Your task to perform on an android device: move a message to another label in the gmail app Image 0: 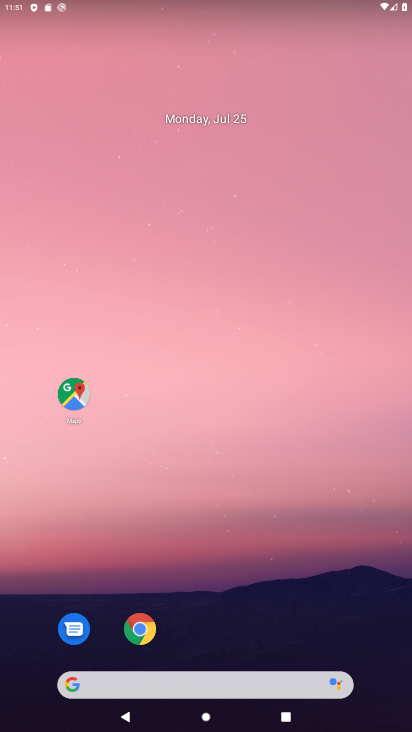
Step 0: click (249, 253)
Your task to perform on an android device: move a message to another label in the gmail app Image 1: 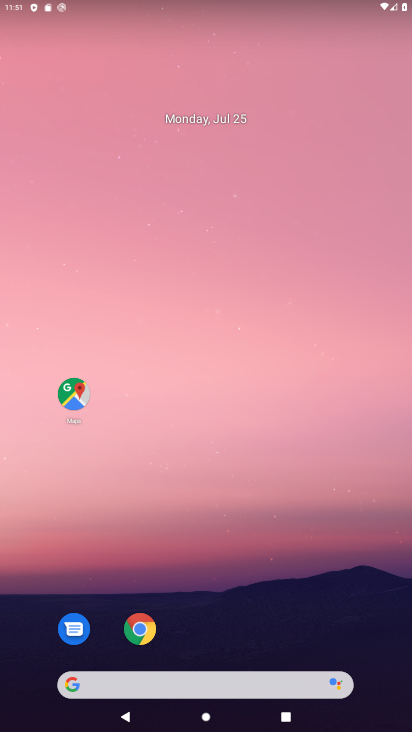
Step 1: drag from (277, 587) to (246, 279)
Your task to perform on an android device: move a message to another label in the gmail app Image 2: 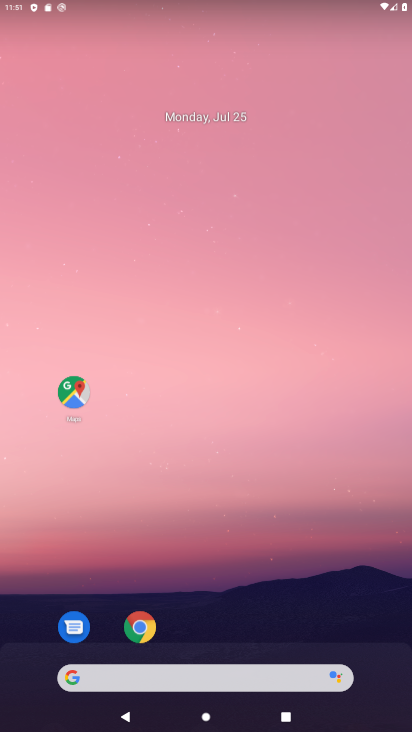
Step 2: drag from (204, 369) to (167, 103)
Your task to perform on an android device: move a message to another label in the gmail app Image 3: 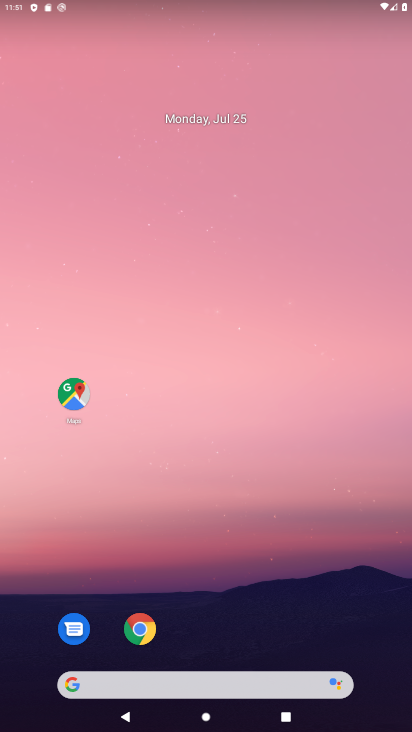
Step 3: drag from (262, 223) to (166, 68)
Your task to perform on an android device: move a message to another label in the gmail app Image 4: 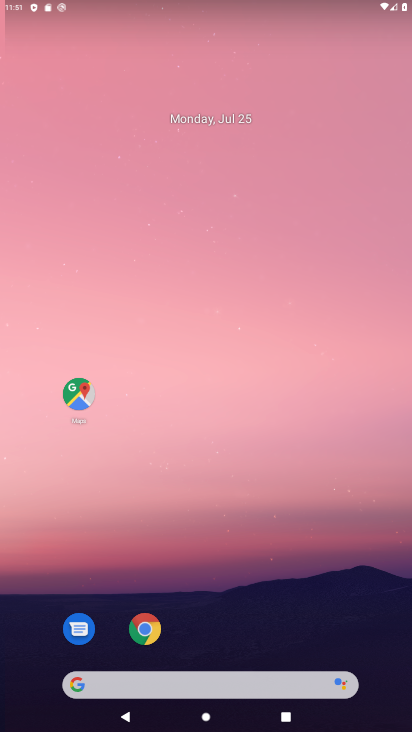
Step 4: drag from (148, 159) to (243, 188)
Your task to perform on an android device: move a message to another label in the gmail app Image 5: 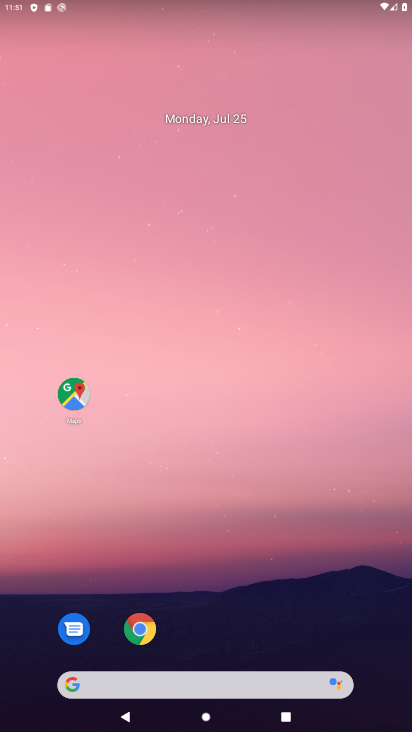
Step 5: drag from (280, 350) to (180, 9)
Your task to perform on an android device: move a message to another label in the gmail app Image 6: 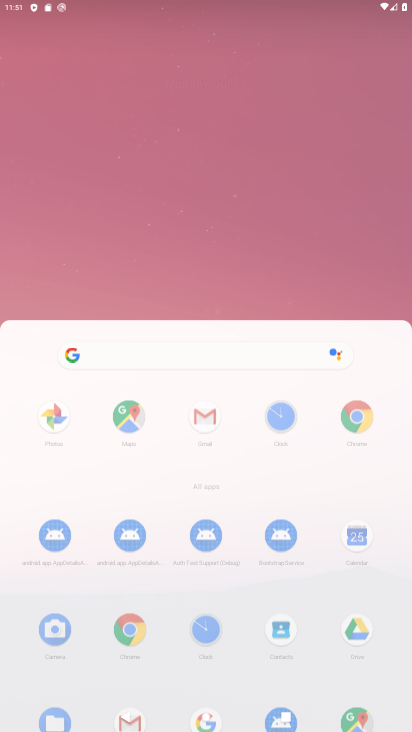
Step 6: drag from (162, 237) to (131, 50)
Your task to perform on an android device: move a message to another label in the gmail app Image 7: 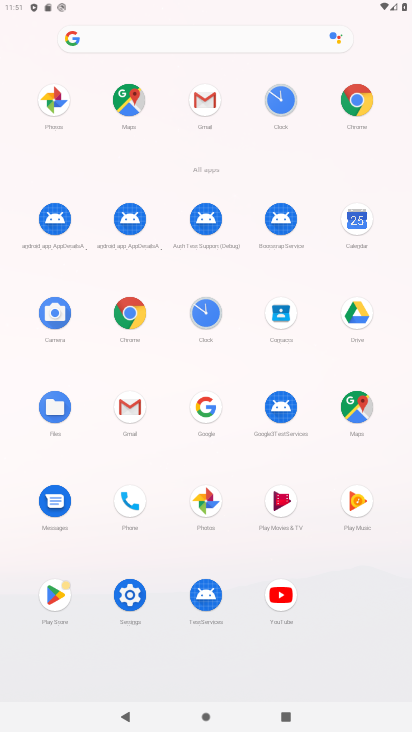
Step 7: click (133, 402)
Your task to perform on an android device: move a message to another label in the gmail app Image 8: 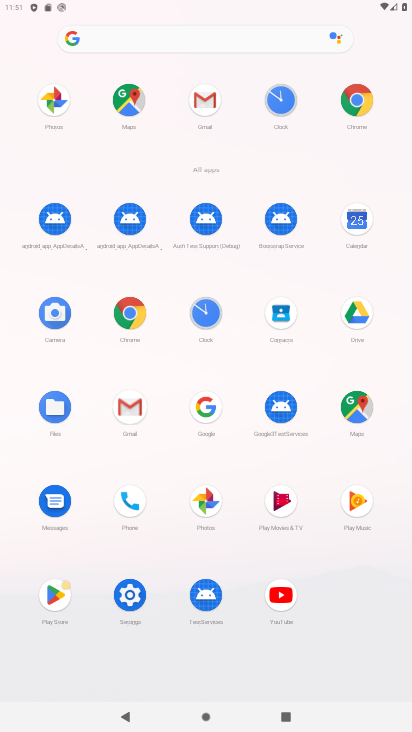
Step 8: click (127, 402)
Your task to perform on an android device: move a message to another label in the gmail app Image 9: 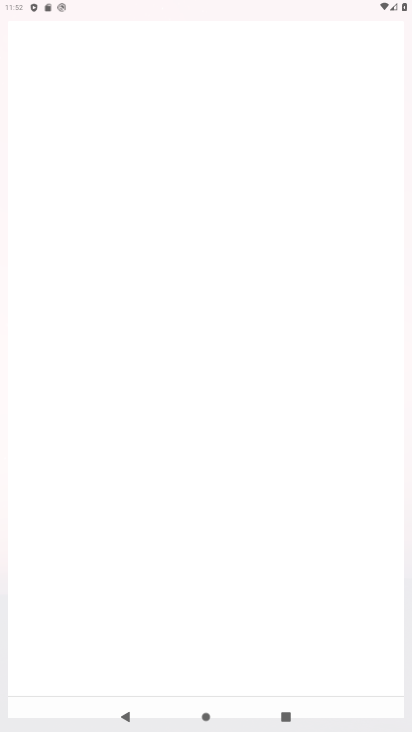
Step 9: click (140, 401)
Your task to perform on an android device: move a message to another label in the gmail app Image 10: 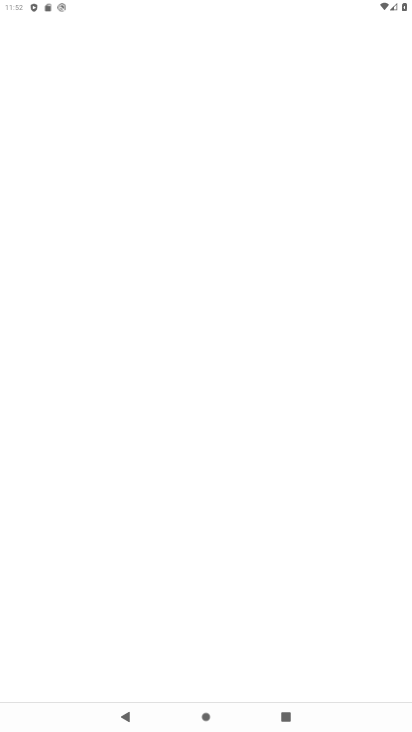
Step 10: click (131, 422)
Your task to perform on an android device: move a message to another label in the gmail app Image 11: 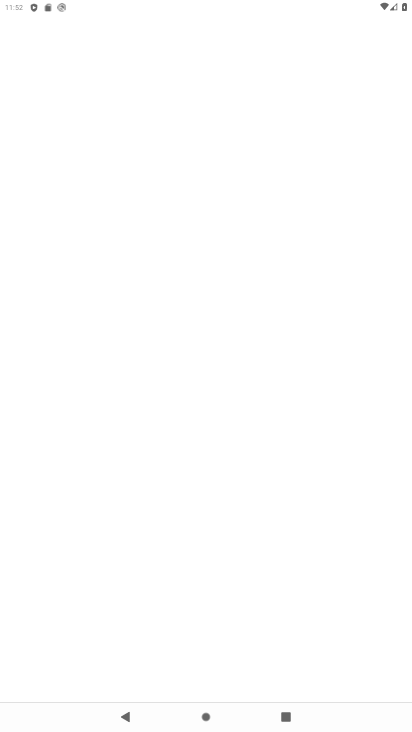
Step 11: click (147, 366)
Your task to perform on an android device: move a message to another label in the gmail app Image 12: 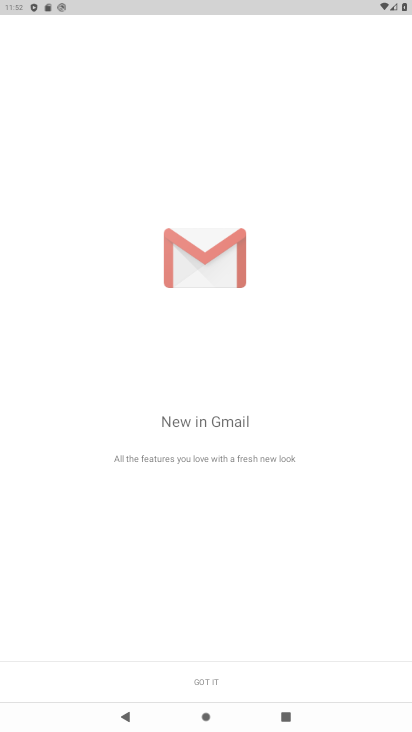
Step 12: click (121, 409)
Your task to perform on an android device: move a message to another label in the gmail app Image 13: 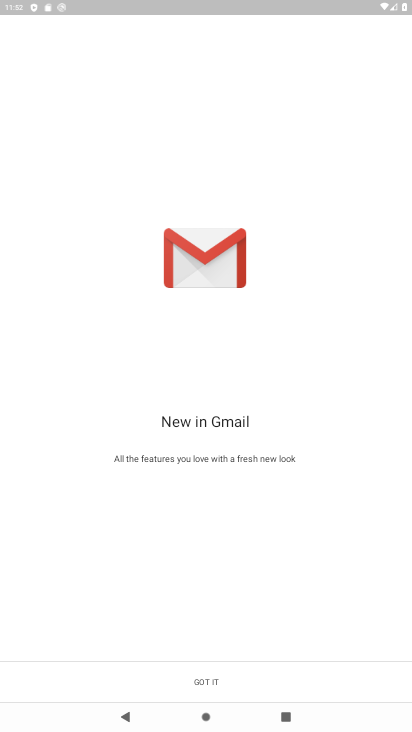
Step 13: click (119, 408)
Your task to perform on an android device: move a message to another label in the gmail app Image 14: 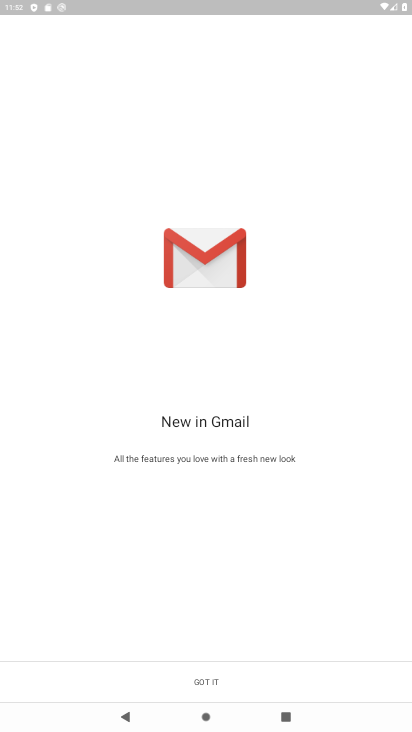
Step 14: click (118, 406)
Your task to perform on an android device: move a message to another label in the gmail app Image 15: 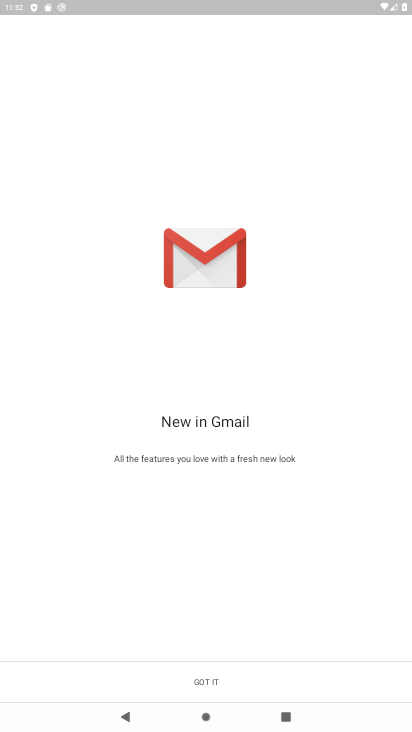
Step 15: click (118, 407)
Your task to perform on an android device: move a message to another label in the gmail app Image 16: 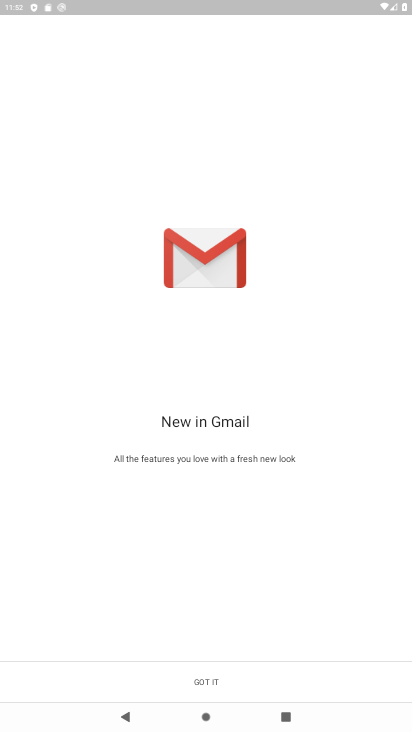
Step 16: click (217, 679)
Your task to perform on an android device: move a message to another label in the gmail app Image 17: 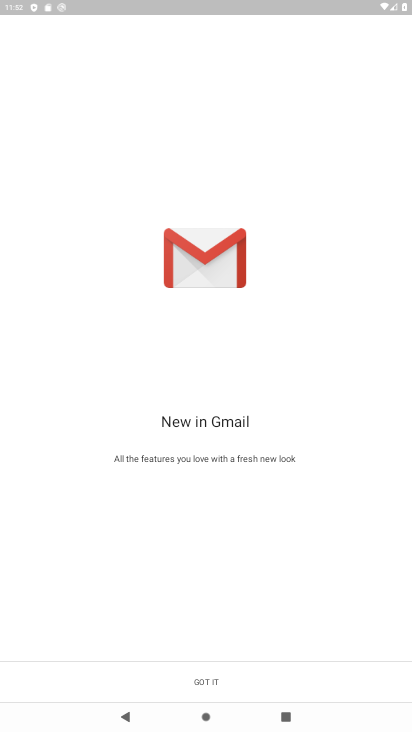
Step 17: click (217, 680)
Your task to perform on an android device: move a message to another label in the gmail app Image 18: 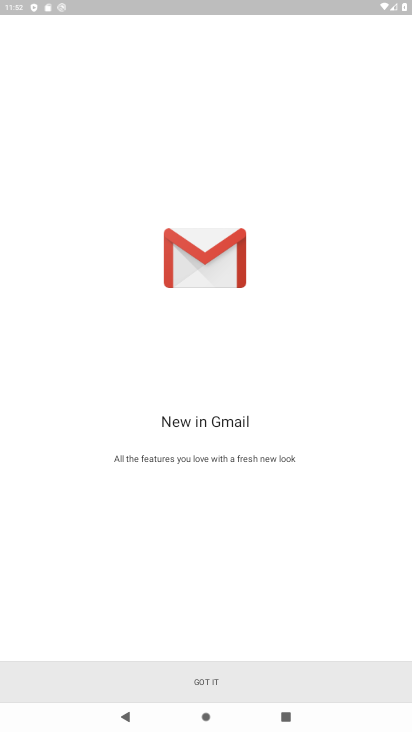
Step 18: click (220, 682)
Your task to perform on an android device: move a message to another label in the gmail app Image 19: 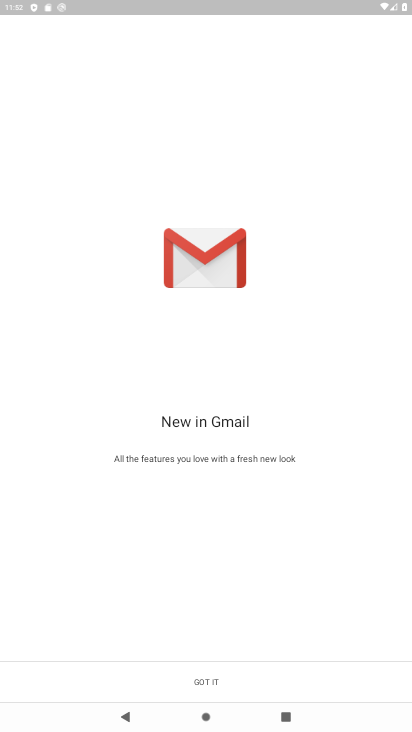
Step 19: click (220, 682)
Your task to perform on an android device: move a message to another label in the gmail app Image 20: 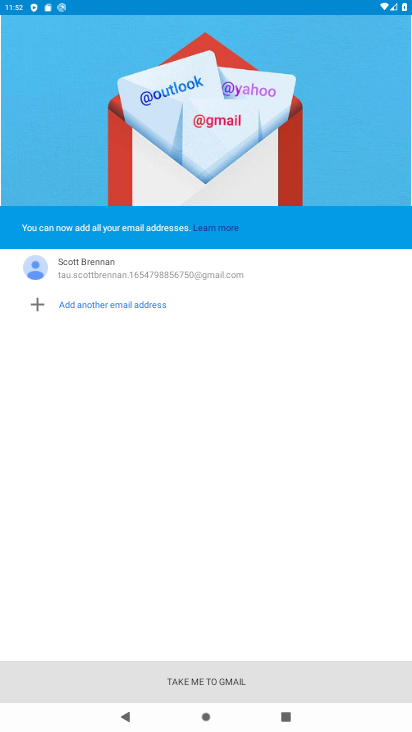
Step 20: click (218, 685)
Your task to perform on an android device: move a message to another label in the gmail app Image 21: 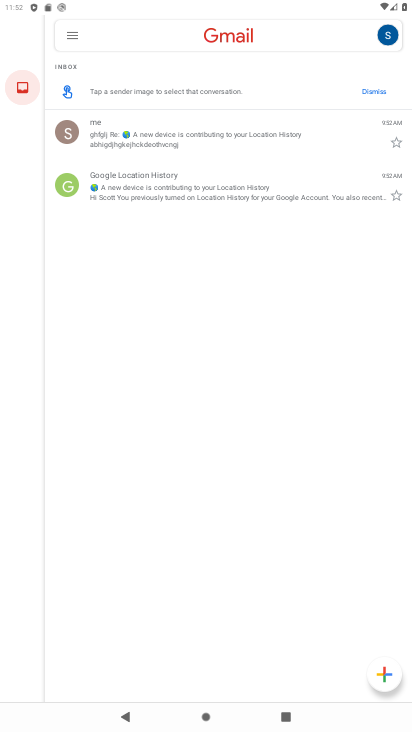
Step 21: click (243, 678)
Your task to perform on an android device: move a message to another label in the gmail app Image 22: 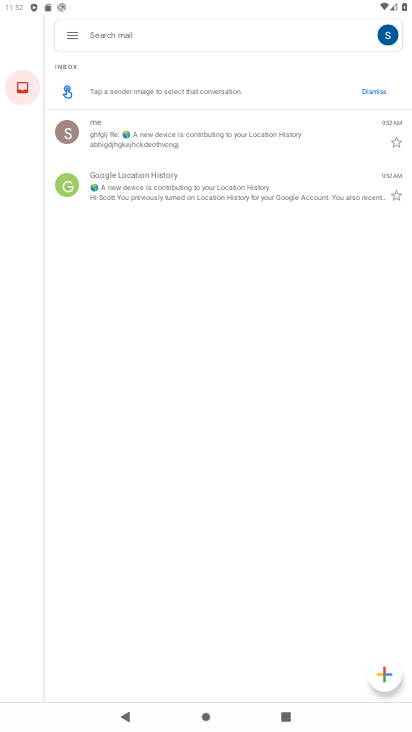
Step 22: click (246, 649)
Your task to perform on an android device: move a message to another label in the gmail app Image 23: 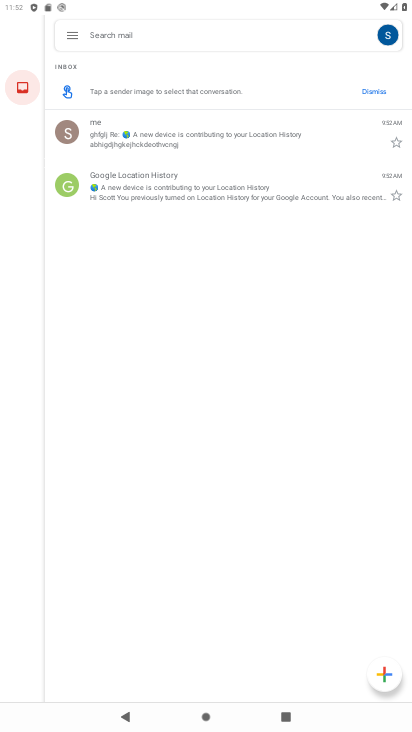
Step 23: click (393, 143)
Your task to perform on an android device: move a message to another label in the gmail app Image 24: 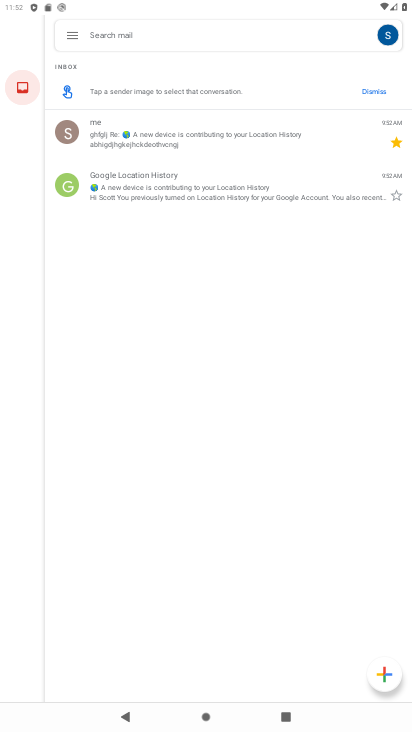
Step 24: click (399, 139)
Your task to perform on an android device: move a message to another label in the gmail app Image 25: 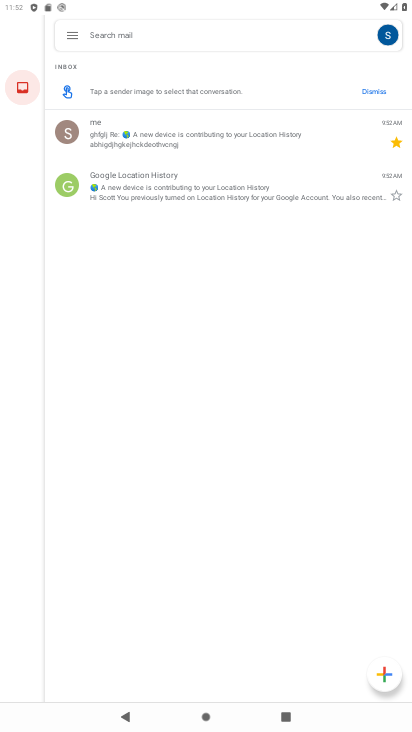
Step 25: click (399, 142)
Your task to perform on an android device: move a message to another label in the gmail app Image 26: 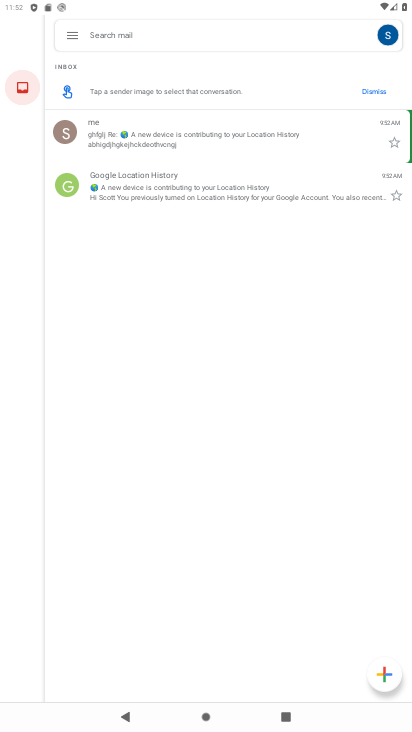
Step 26: click (398, 141)
Your task to perform on an android device: move a message to another label in the gmail app Image 27: 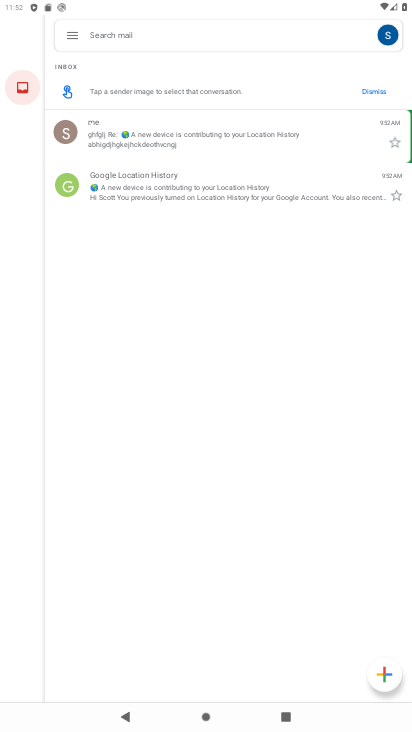
Step 27: click (401, 145)
Your task to perform on an android device: move a message to another label in the gmail app Image 28: 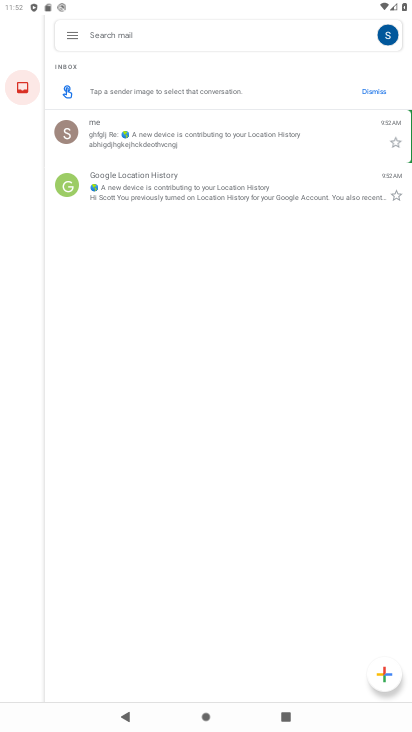
Step 28: task complete